Your task to perform on an android device: Go to Maps Image 0: 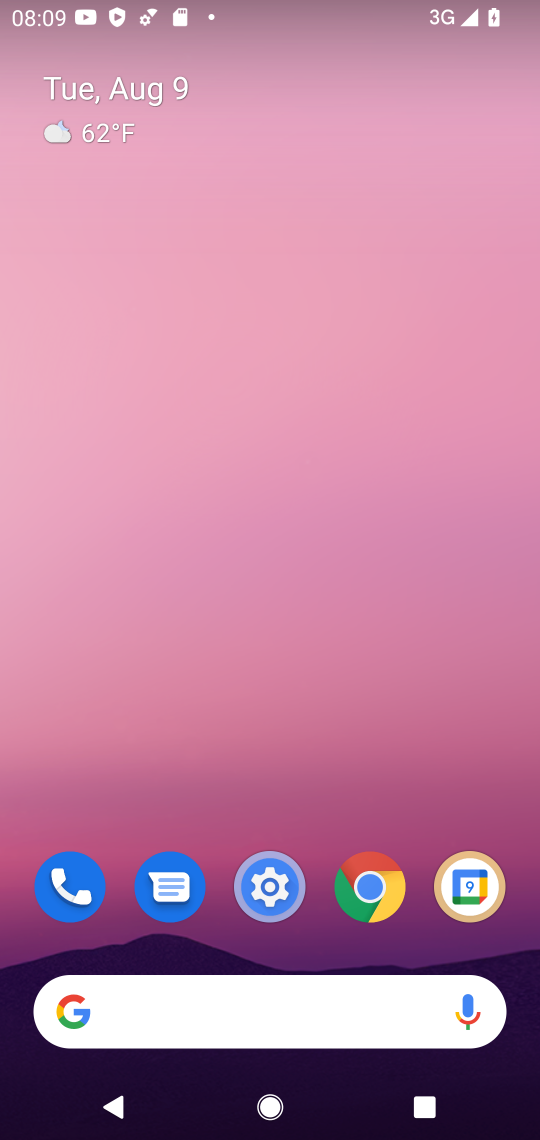
Step 0: drag from (295, 661) to (325, 29)
Your task to perform on an android device: Go to Maps Image 1: 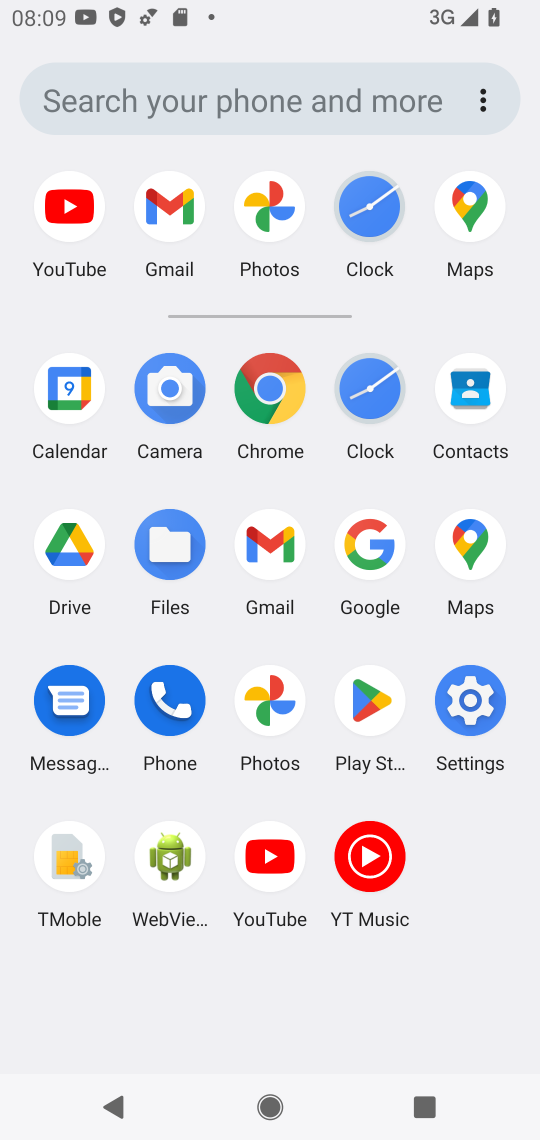
Step 1: click (473, 541)
Your task to perform on an android device: Go to Maps Image 2: 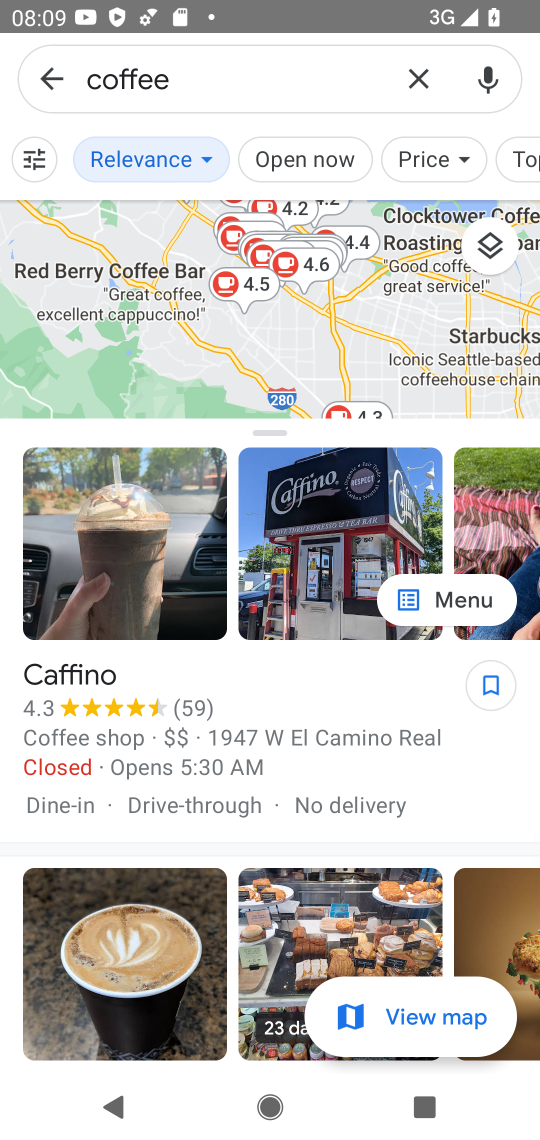
Step 2: click (417, 78)
Your task to perform on an android device: Go to Maps Image 3: 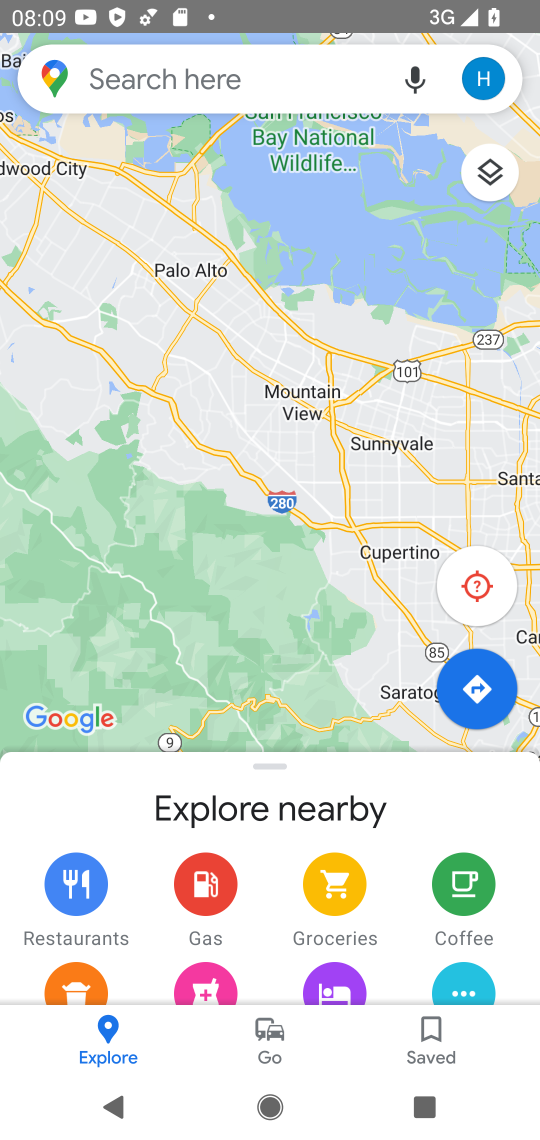
Step 3: task complete